Your task to perform on an android device: find which apps use the phone's location Image 0: 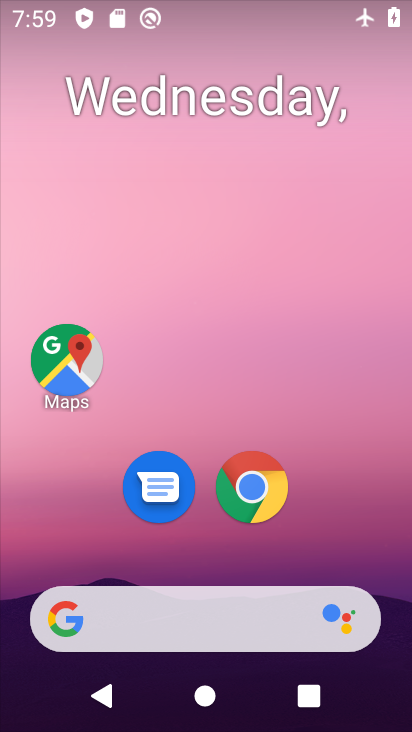
Step 0: drag from (370, 587) to (333, 8)
Your task to perform on an android device: find which apps use the phone's location Image 1: 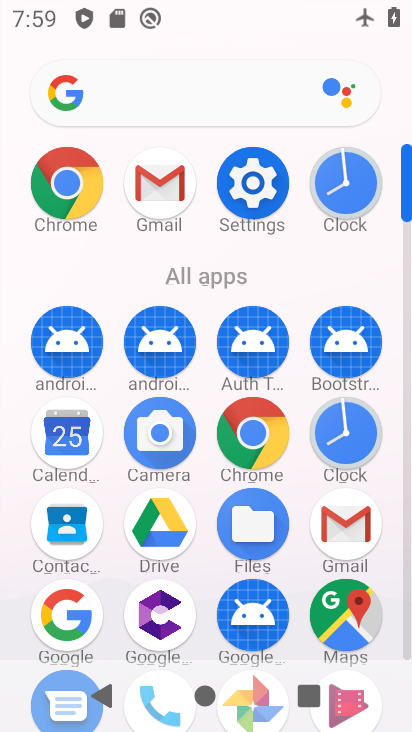
Step 1: click (248, 185)
Your task to perform on an android device: find which apps use the phone's location Image 2: 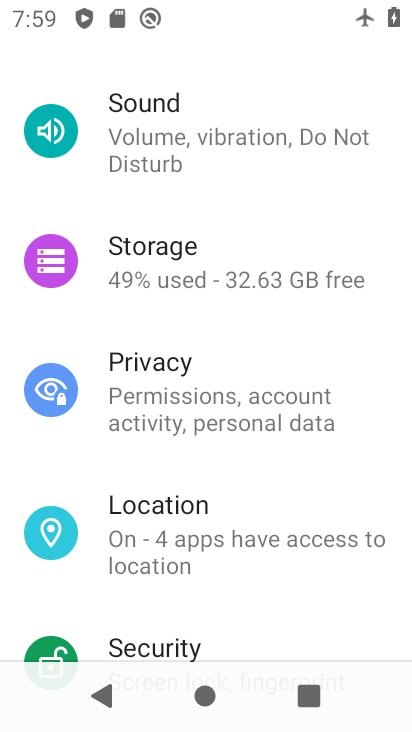
Step 2: click (166, 523)
Your task to perform on an android device: find which apps use the phone's location Image 3: 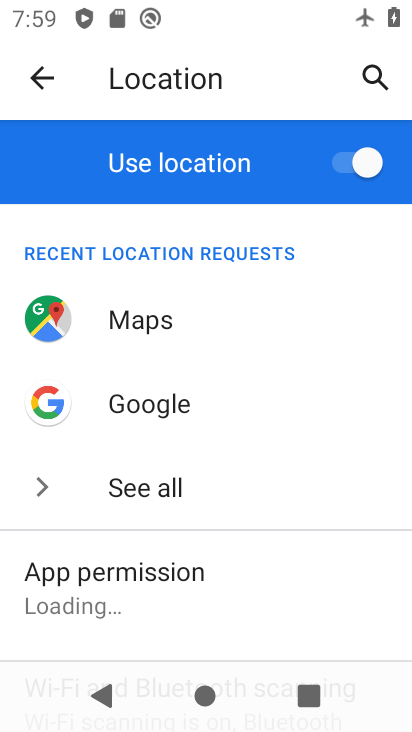
Step 3: drag from (239, 534) to (232, 235)
Your task to perform on an android device: find which apps use the phone's location Image 4: 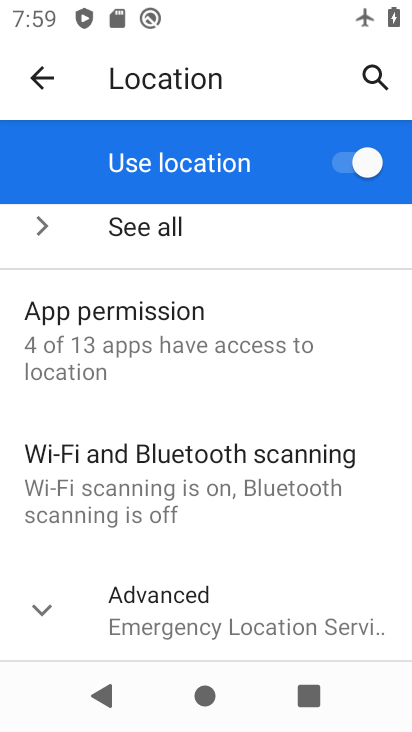
Step 4: click (63, 326)
Your task to perform on an android device: find which apps use the phone's location Image 5: 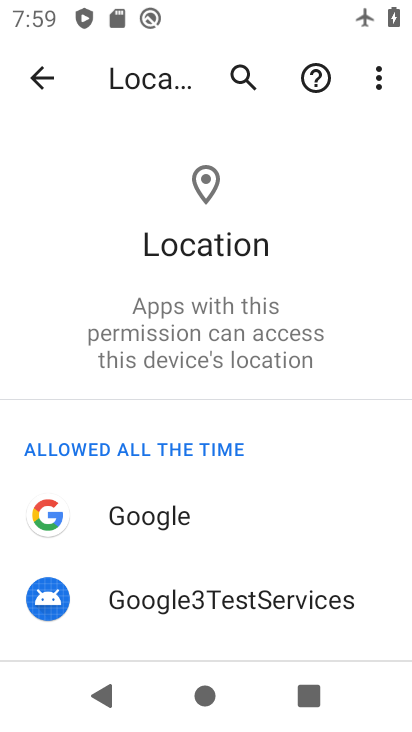
Step 5: task complete